Your task to perform on an android device: turn on translation in the chrome app Image 0: 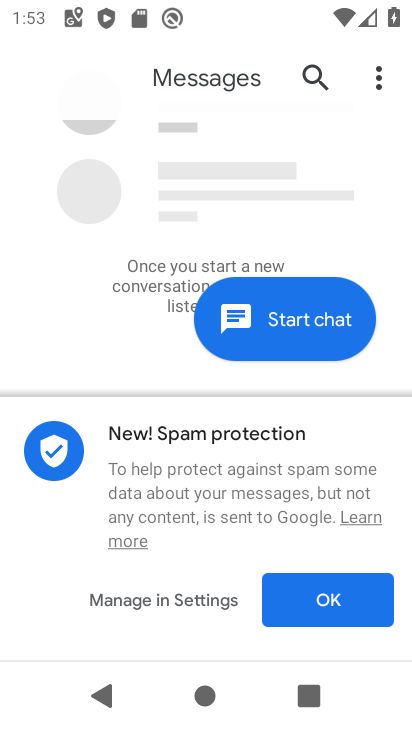
Step 0: press home button
Your task to perform on an android device: turn on translation in the chrome app Image 1: 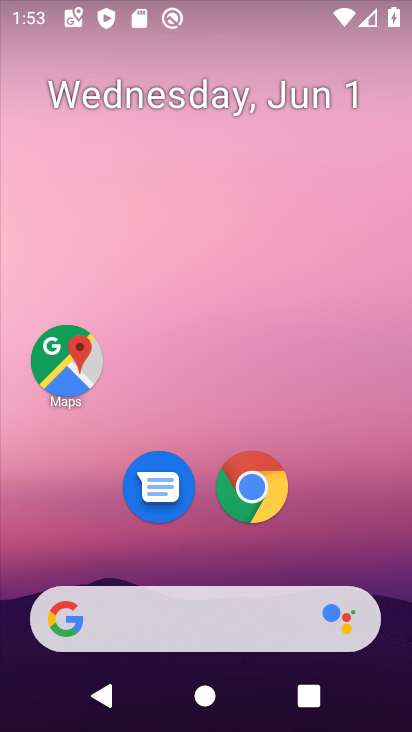
Step 1: drag from (363, 542) to (364, 209)
Your task to perform on an android device: turn on translation in the chrome app Image 2: 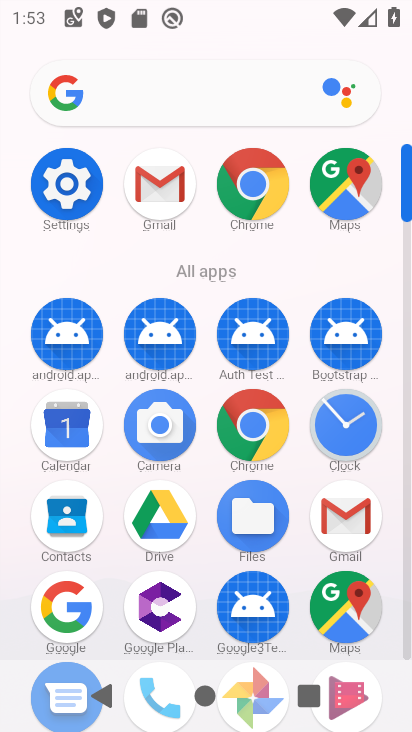
Step 2: click (241, 444)
Your task to perform on an android device: turn on translation in the chrome app Image 3: 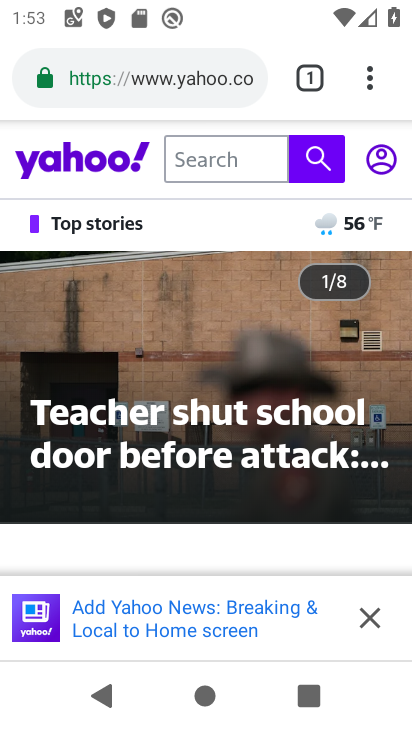
Step 3: click (369, 82)
Your task to perform on an android device: turn on translation in the chrome app Image 4: 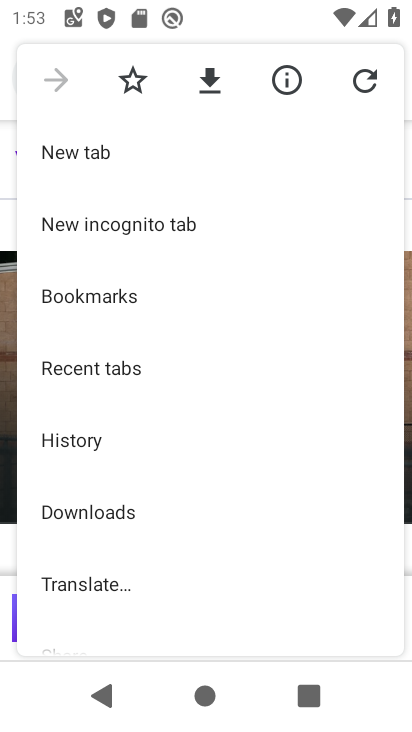
Step 4: drag from (268, 420) to (272, 369)
Your task to perform on an android device: turn on translation in the chrome app Image 5: 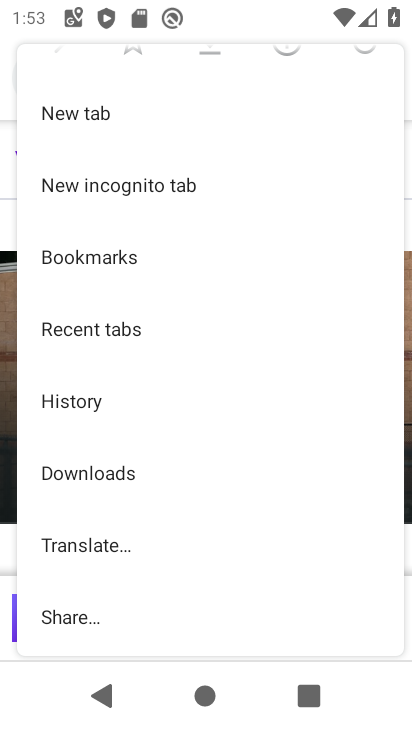
Step 5: drag from (277, 489) to (279, 408)
Your task to perform on an android device: turn on translation in the chrome app Image 6: 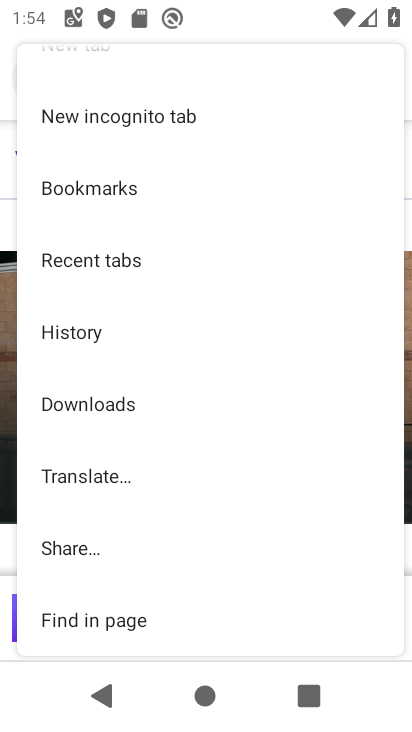
Step 6: drag from (253, 481) to (248, 418)
Your task to perform on an android device: turn on translation in the chrome app Image 7: 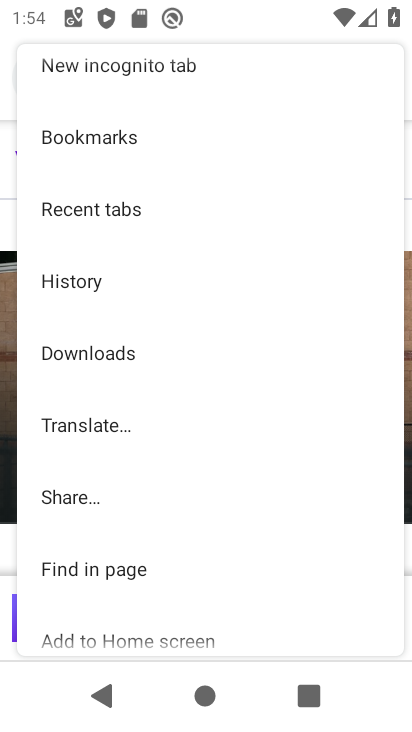
Step 7: drag from (247, 499) to (251, 440)
Your task to perform on an android device: turn on translation in the chrome app Image 8: 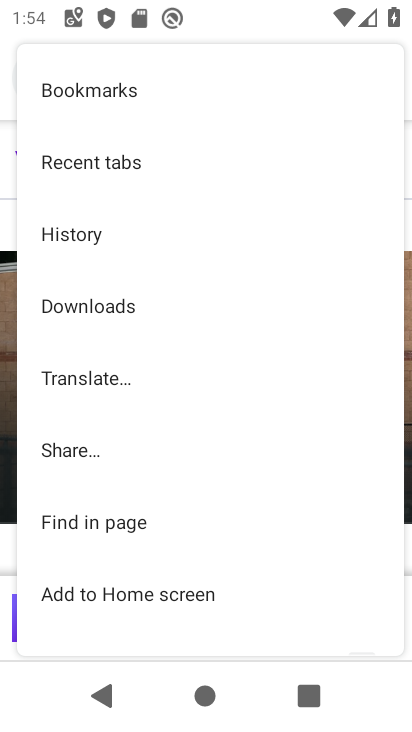
Step 8: drag from (244, 475) to (251, 402)
Your task to perform on an android device: turn on translation in the chrome app Image 9: 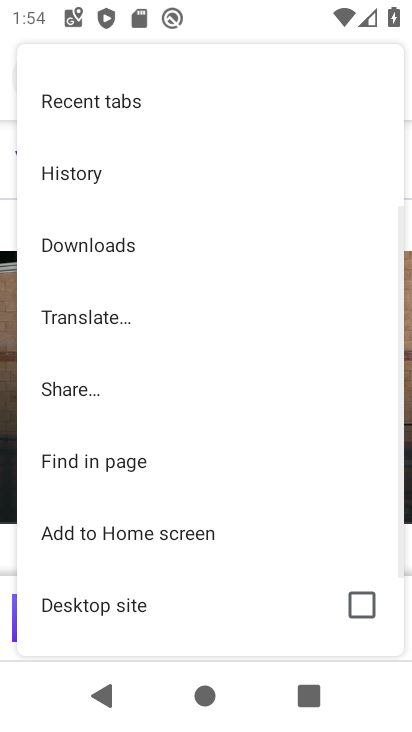
Step 9: drag from (236, 500) to (245, 424)
Your task to perform on an android device: turn on translation in the chrome app Image 10: 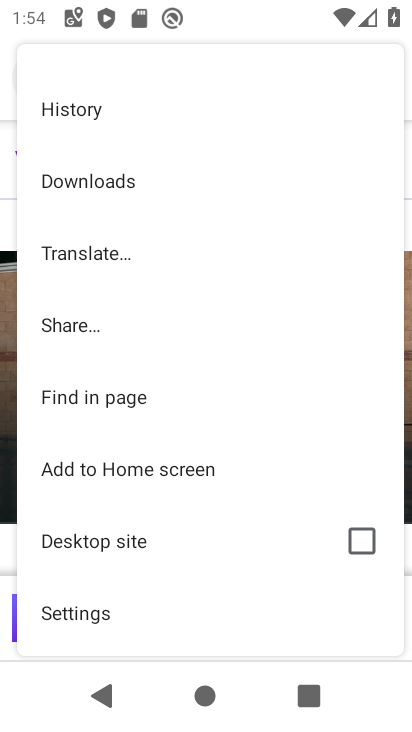
Step 10: click (245, 468)
Your task to perform on an android device: turn on translation in the chrome app Image 11: 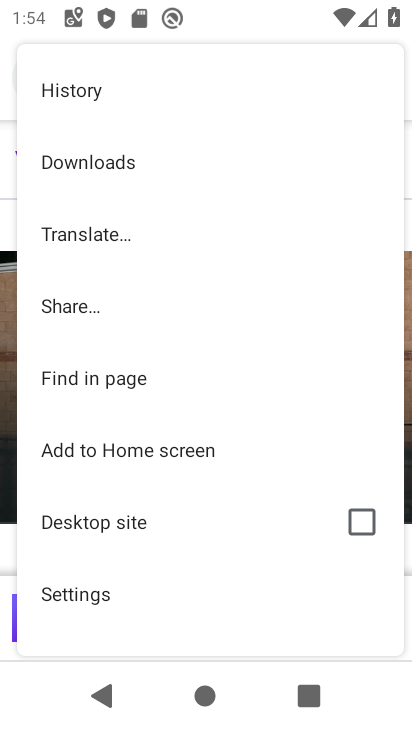
Step 11: drag from (223, 505) to (242, 364)
Your task to perform on an android device: turn on translation in the chrome app Image 12: 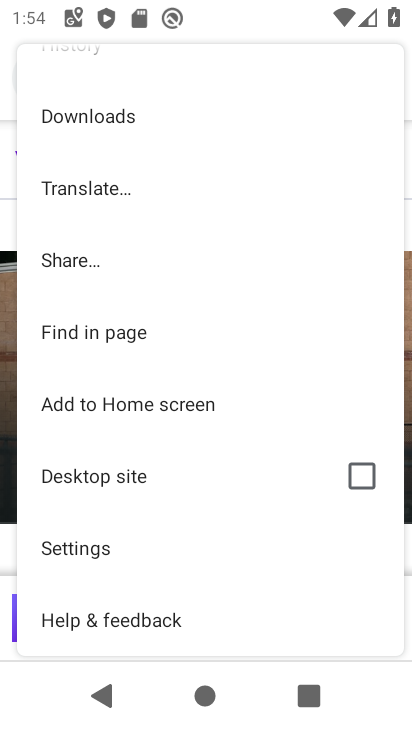
Step 12: click (130, 564)
Your task to perform on an android device: turn on translation in the chrome app Image 13: 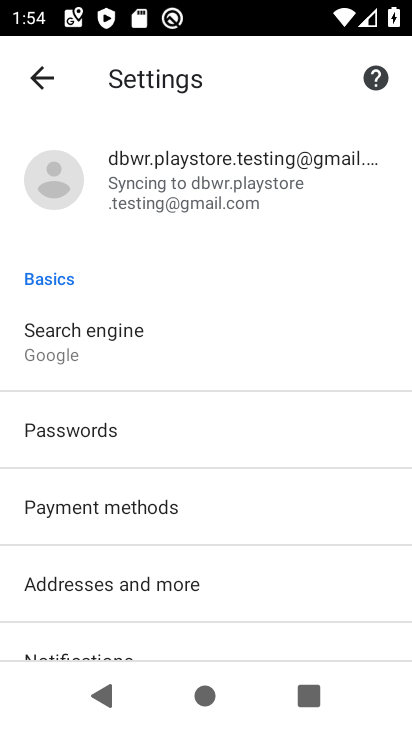
Step 13: drag from (234, 536) to (243, 477)
Your task to perform on an android device: turn on translation in the chrome app Image 14: 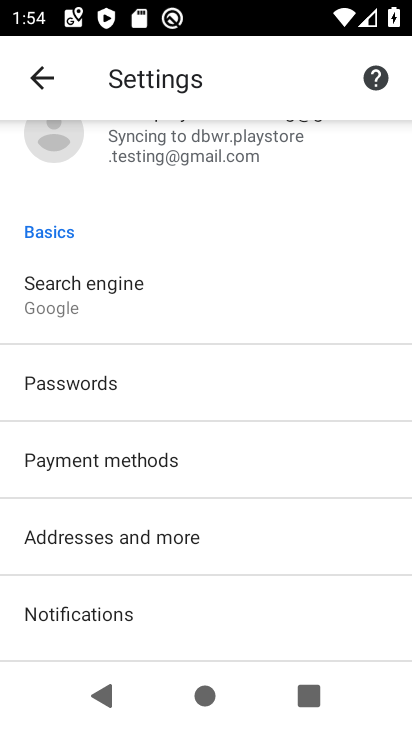
Step 14: drag from (238, 502) to (245, 381)
Your task to perform on an android device: turn on translation in the chrome app Image 15: 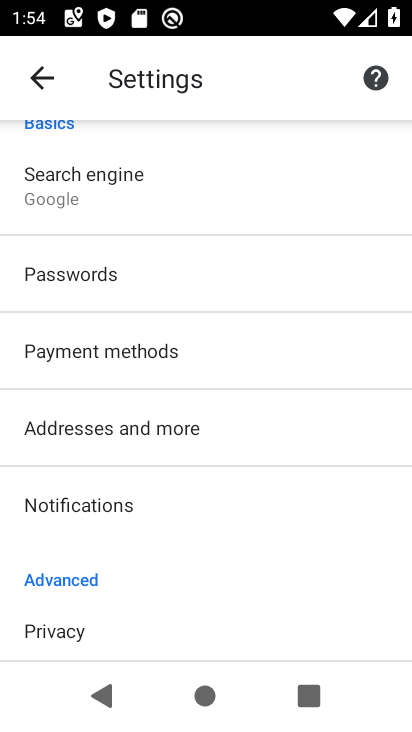
Step 15: drag from (228, 464) to (246, 349)
Your task to perform on an android device: turn on translation in the chrome app Image 16: 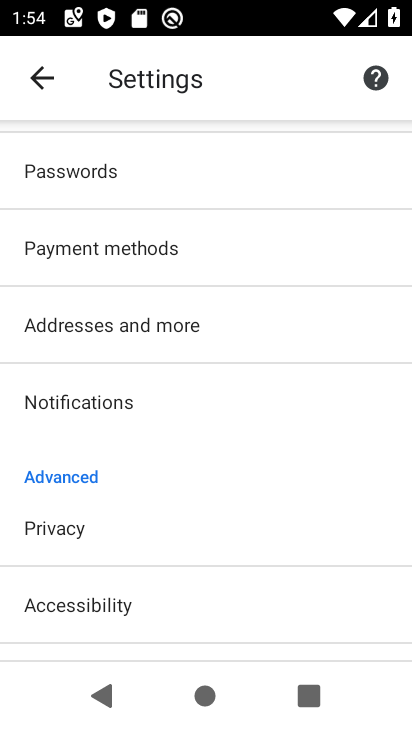
Step 16: drag from (214, 456) to (233, 305)
Your task to perform on an android device: turn on translation in the chrome app Image 17: 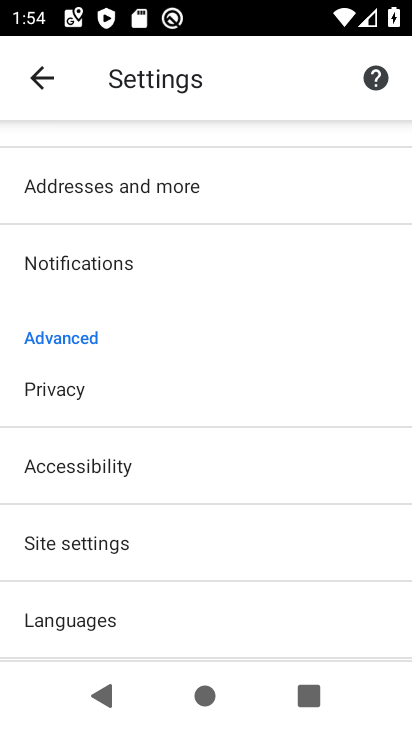
Step 17: drag from (189, 526) to (211, 374)
Your task to perform on an android device: turn on translation in the chrome app Image 18: 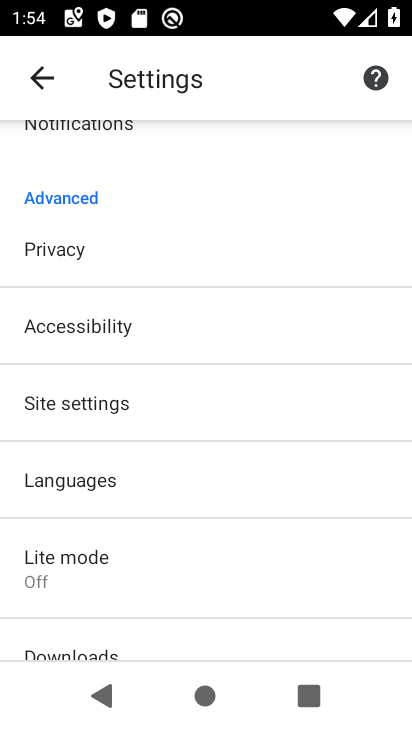
Step 18: click (181, 499)
Your task to perform on an android device: turn on translation in the chrome app Image 19: 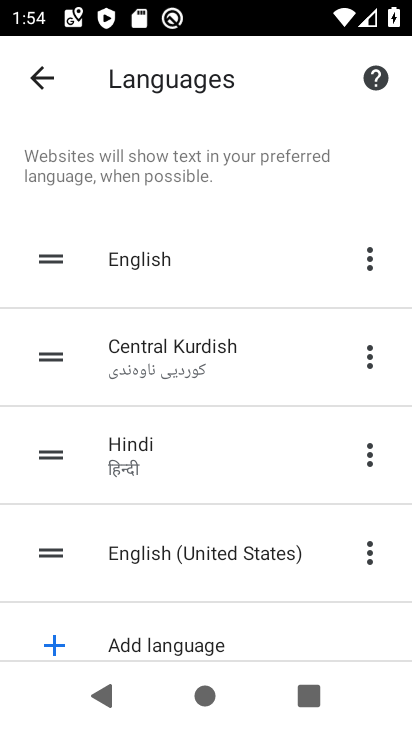
Step 19: drag from (182, 498) to (197, 430)
Your task to perform on an android device: turn on translation in the chrome app Image 20: 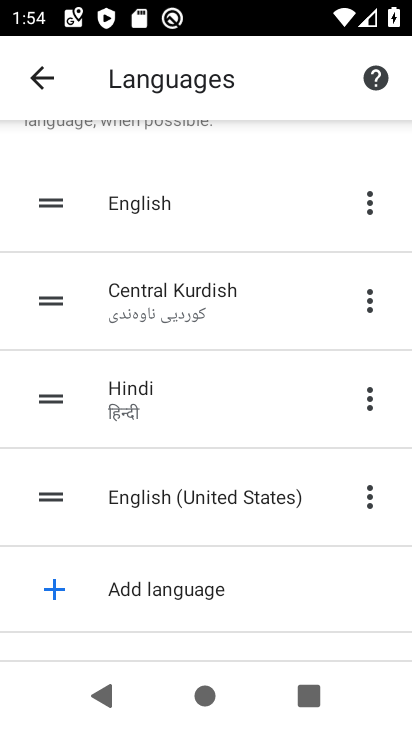
Step 20: drag from (193, 525) to (215, 461)
Your task to perform on an android device: turn on translation in the chrome app Image 21: 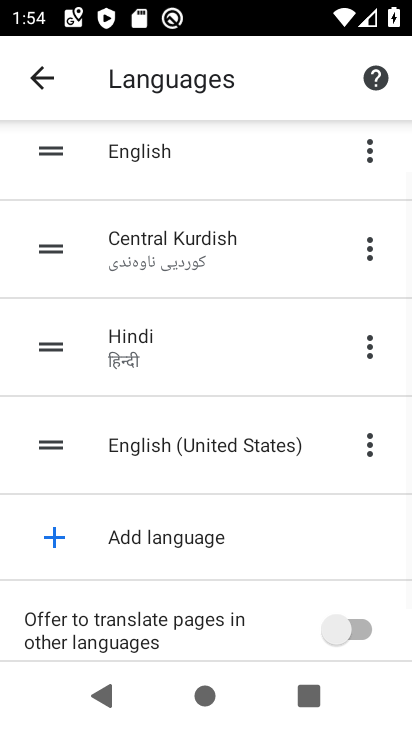
Step 21: drag from (214, 508) to (223, 445)
Your task to perform on an android device: turn on translation in the chrome app Image 22: 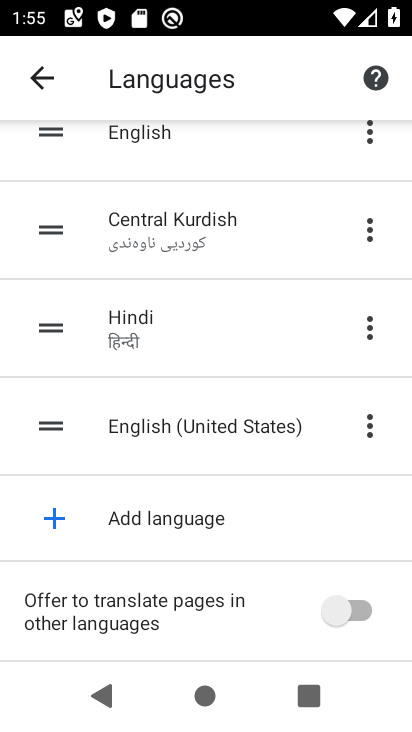
Step 22: click (317, 596)
Your task to perform on an android device: turn on translation in the chrome app Image 23: 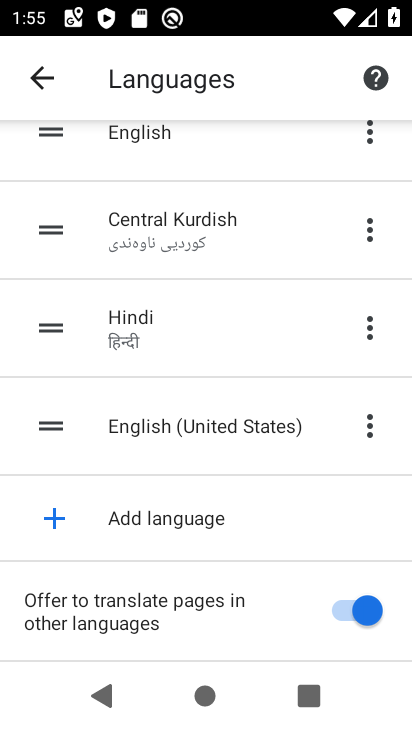
Step 23: task complete